Your task to perform on an android device: find snoozed emails in the gmail app Image 0: 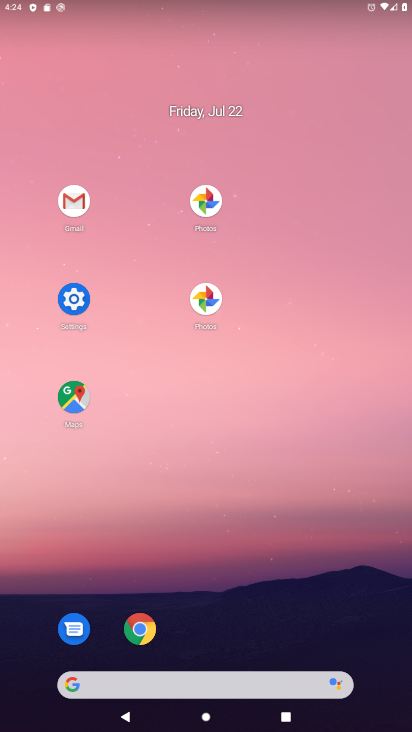
Step 0: click (66, 226)
Your task to perform on an android device: find snoozed emails in the gmail app Image 1: 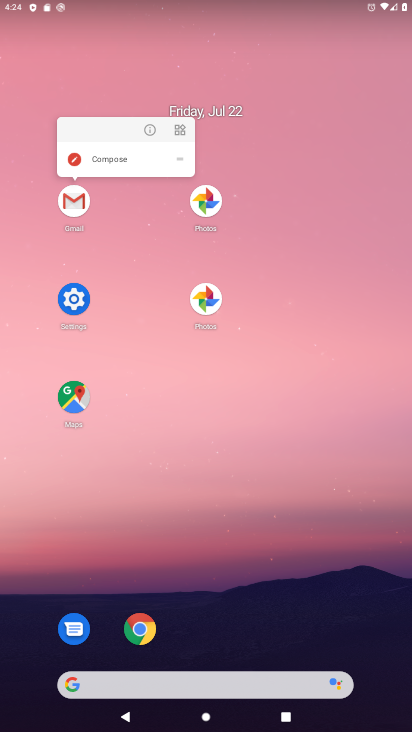
Step 1: click (76, 202)
Your task to perform on an android device: find snoozed emails in the gmail app Image 2: 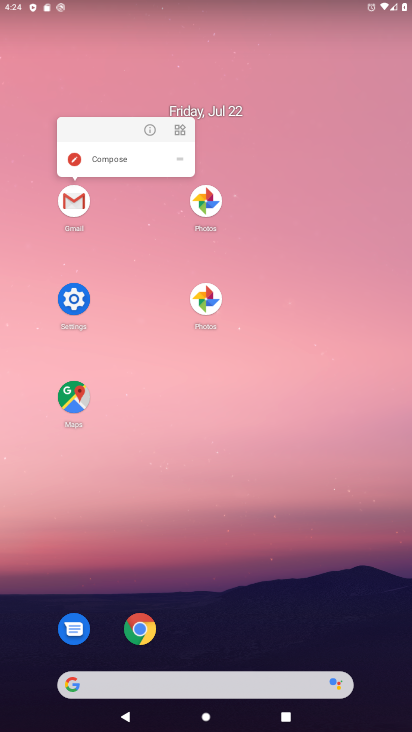
Step 2: click (76, 202)
Your task to perform on an android device: find snoozed emails in the gmail app Image 3: 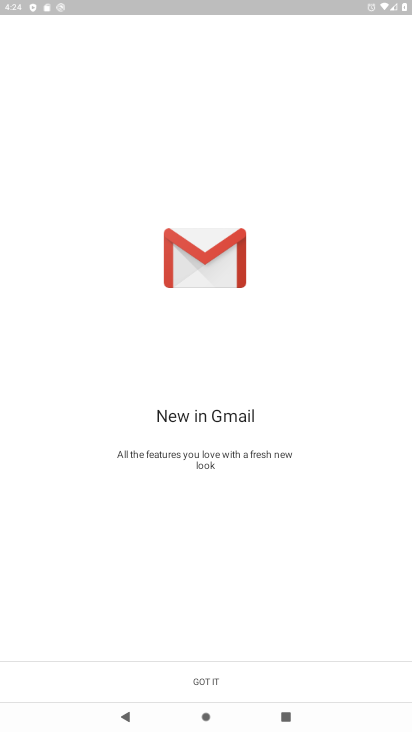
Step 3: click (202, 702)
Your task to perform on an android device: find snoozed emails in the gmail app Image 4: 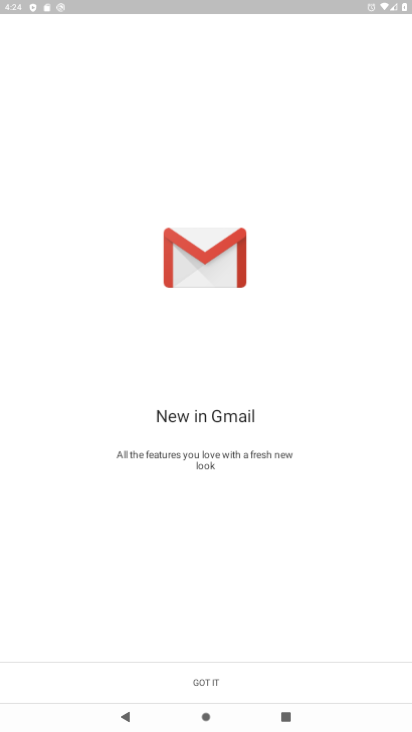
Step 4: click (188, 681)
Your task to perform on an android device: find snoozed emails in the gmail app Image 5: 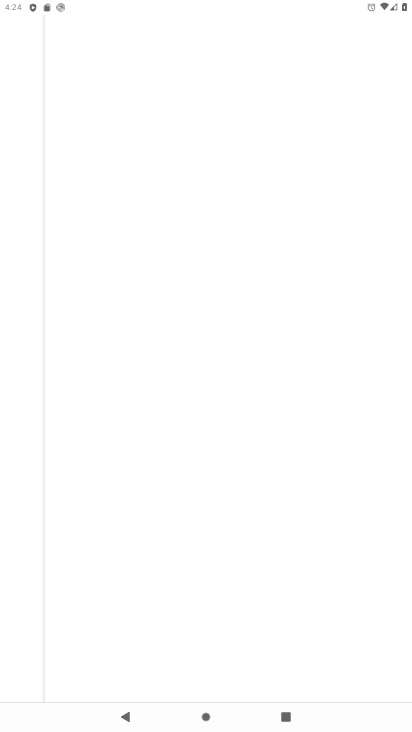
Step 5: click (196, 685)
Your task to perform on an android device: find snoozed emails in the gmail app Image 6: 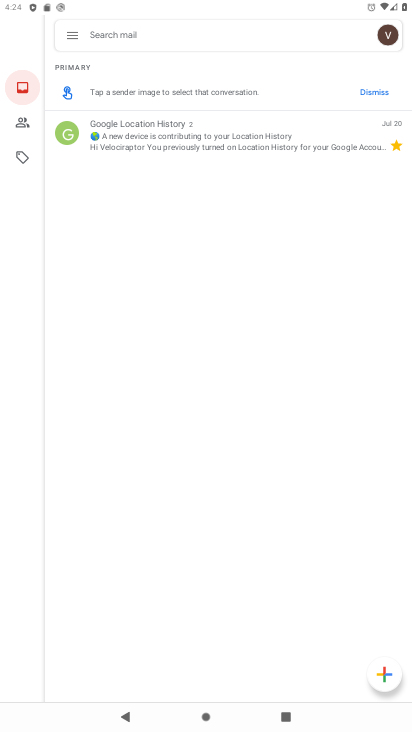
Step 6: click (78, 32)
Your task to perform on an android device: find snoozed emails in the gmail app Image 7: 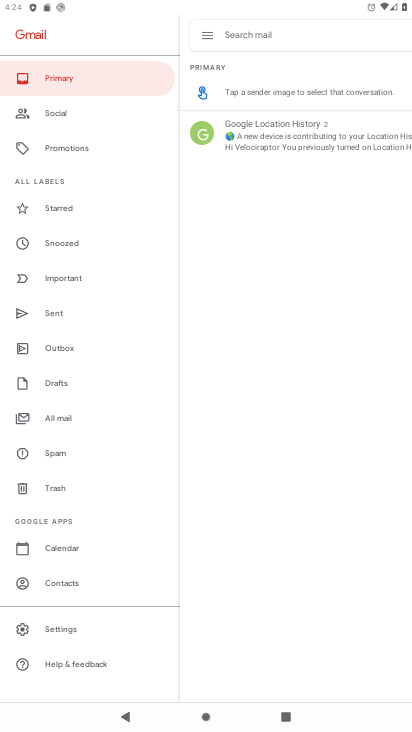
Step 7: click (100, 240)
Your task to perform on an android device: find snoozed emails in the gmail app Image 8: 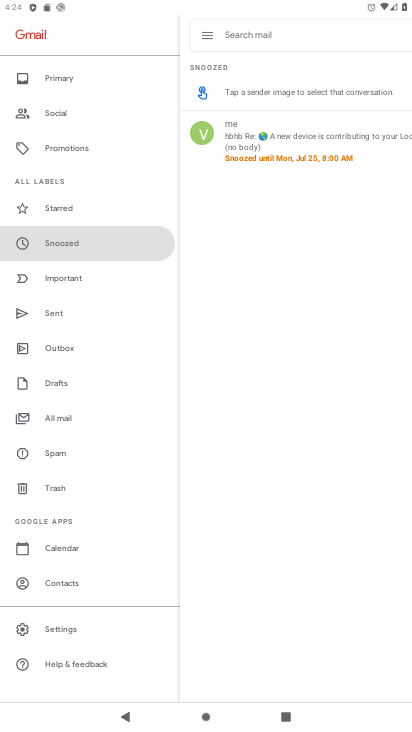
Step 8: click (109, 241)
Your task to perform on an android device: find snoozed emails in the gmail app Image 9: 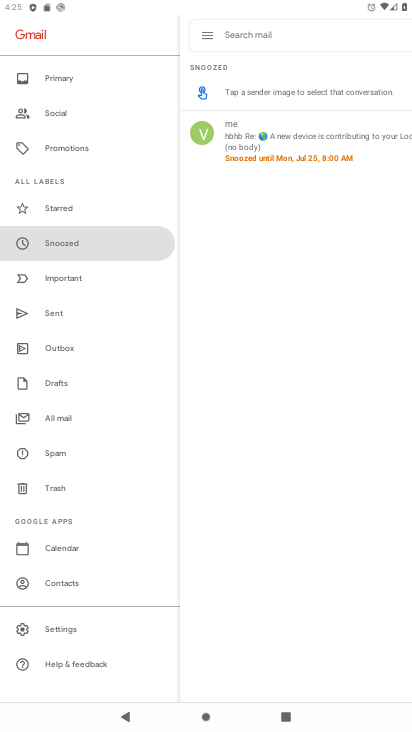
Step 9: task complete